Your task to perform on an android device: Open Wikipedia Image 0: 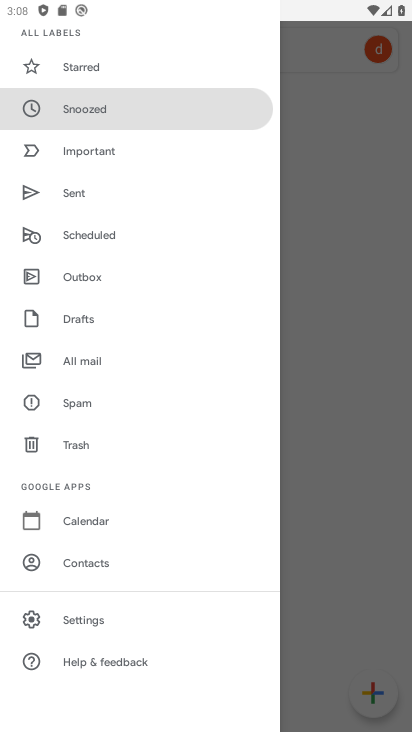
Step 0: press home button
Your task to perform on an android device: Open Wikipedia Image 1: 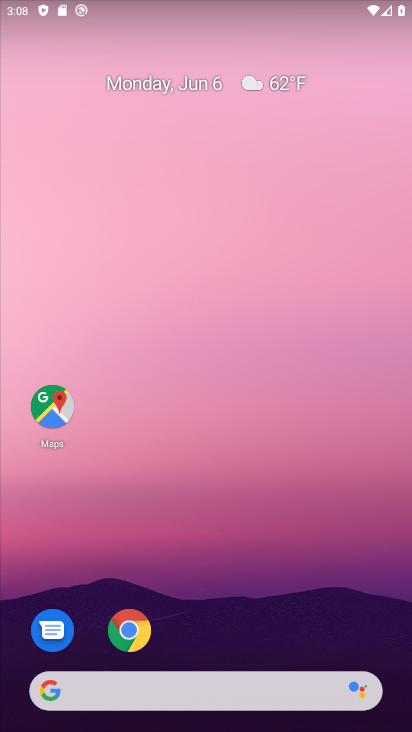
Step 1: click (140, 625)
Your task to perform on an android device: Open Wikipedia Image 2: 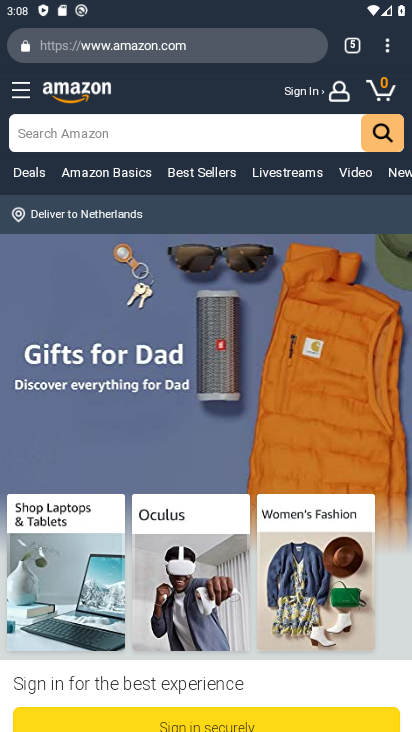
Step 2: drag from (383, 39) to (204, 94)
Your task to perform on an android device: Open Wikipedia Image 3: 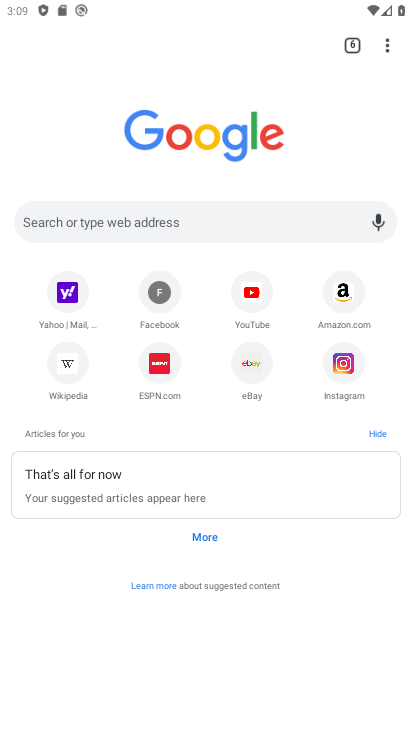
Step 3: click (70, 369)
Your task to perform on an android device: Open Wikipedia Image 4: 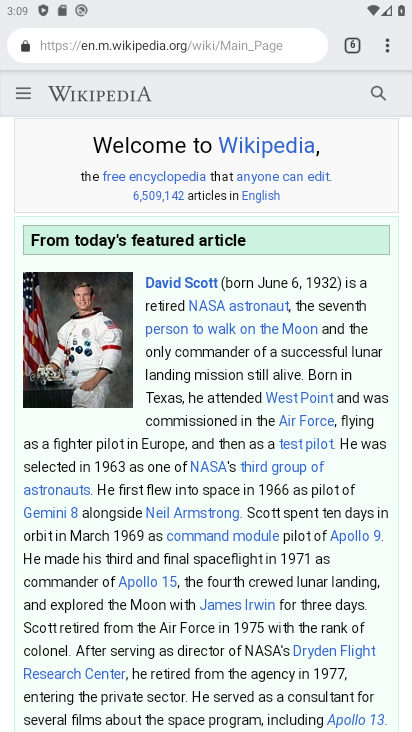
Step 4: task complete